Your task to perform on an android device: Open Google Chrome and open the bookmarks view Image 0: 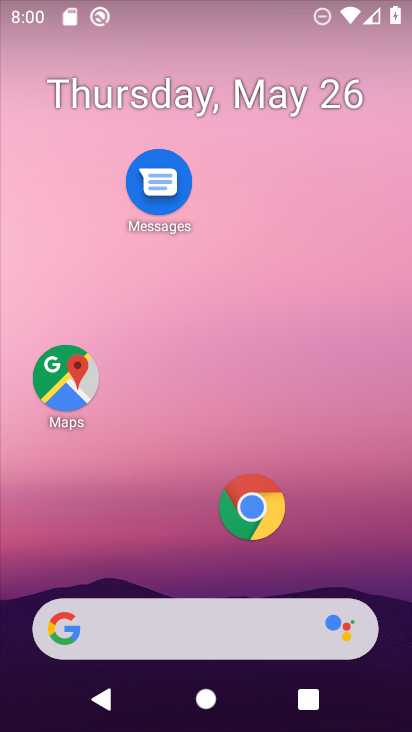
Step 0: click (263, 510)
Your task to perform on an android device: Open Google Chrome and open the bookmarks view Image 1: 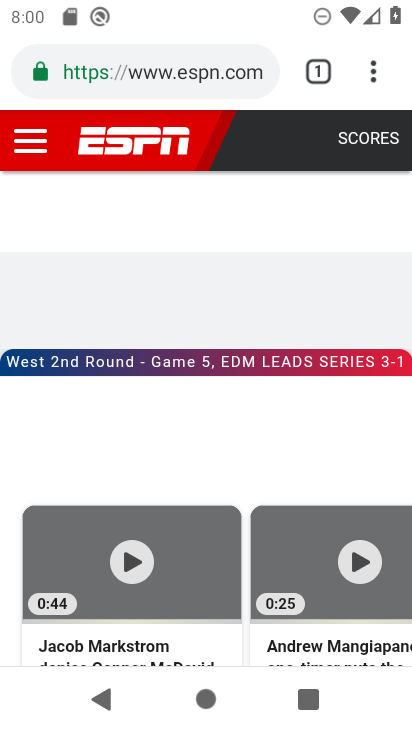
Step 1: click (374, 67)
Your task to perform on an android device: Open Google Chrome and open the bookmarks view Image 2: 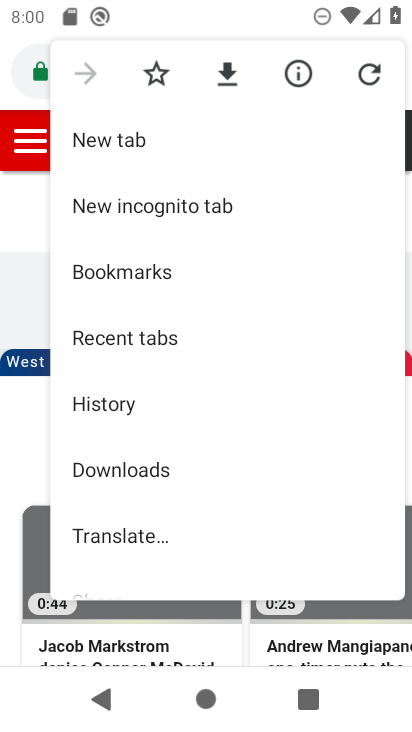
Step 2: click (153, 281)
Your task to perform on an android device: Open Google Chrome and open the bookmarks view Image 3: 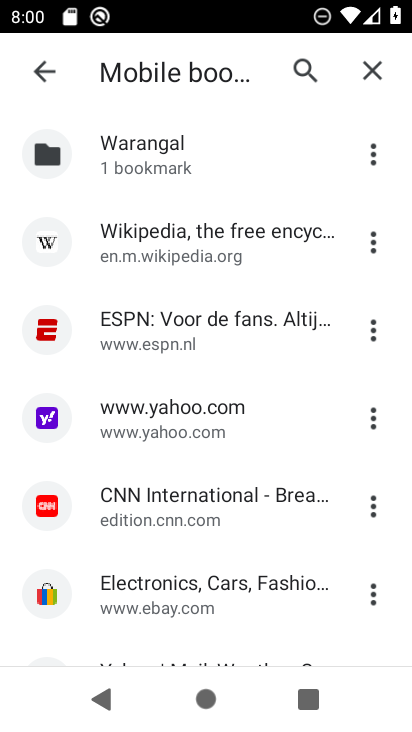
Step 3: task complete